Your task to perform on an android device: see sites visited before in the chrome app Image 0: 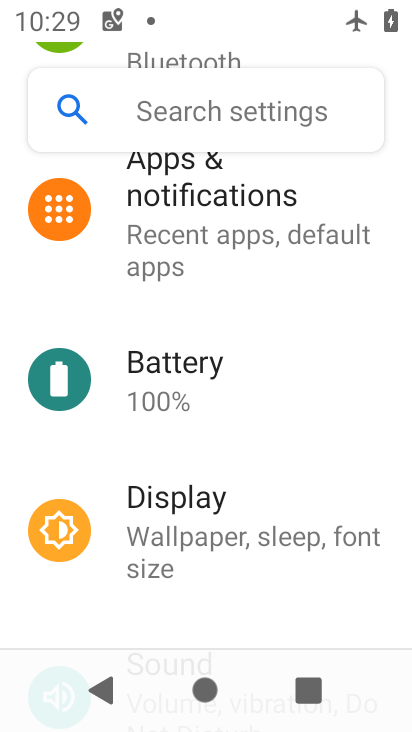
Step 0: press home button
Your task to perform on an android device: see sites visited before in the chrome app Image 1: 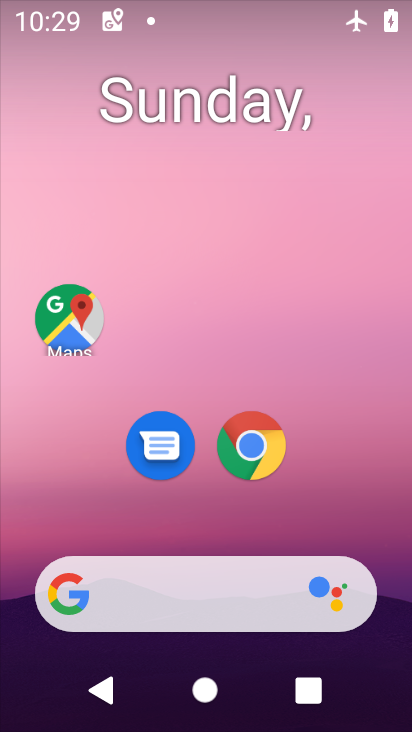
Step 1: click (248, 448)
Your task to perform on an android device: see sites visited before in the chrome app Image 2: 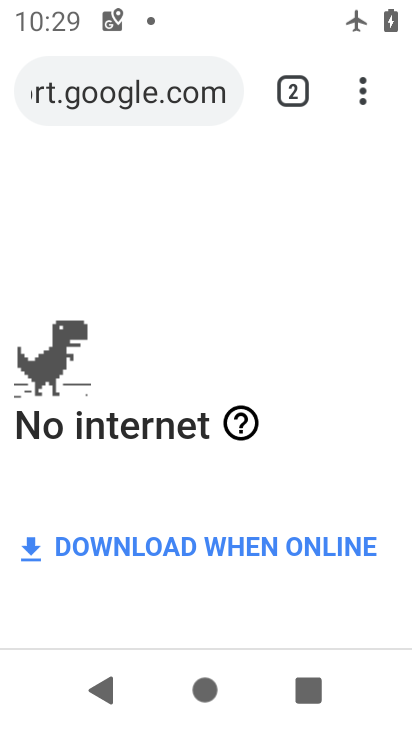
Step 2: click (365, 92)
Your task to perform on an android device: see sites visited before in the chrome app Image 3: 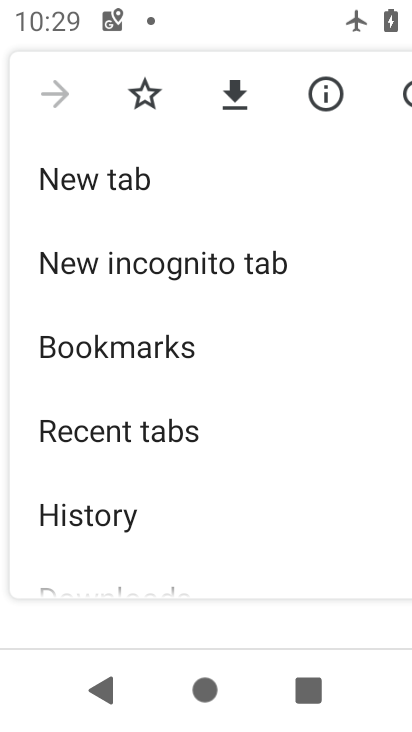
Step 3: click (121, 499)
Your task to perform on an android device: see sites visited before in the chrome app Image 4: 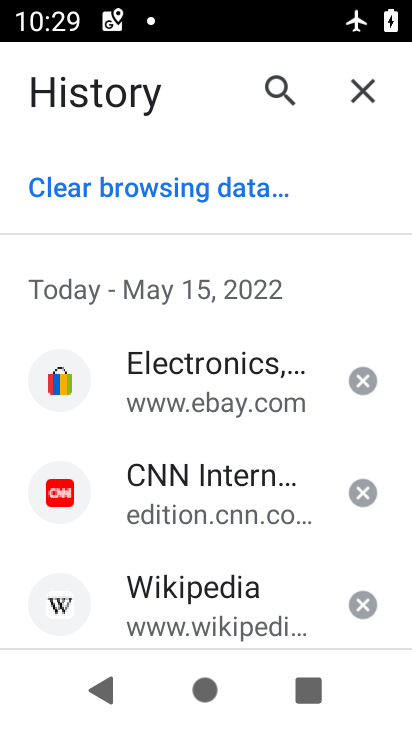
Step 4: task complete